Your task to perform on an android device: What's the weather today? Image 0: 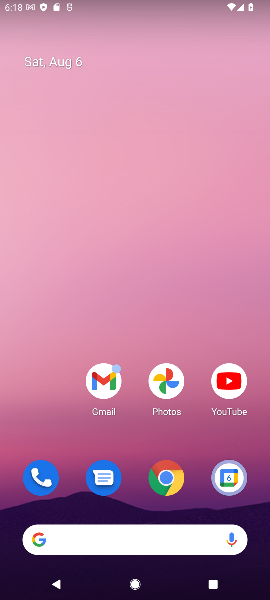
Step 0: click (117, 542)
Your task to perform on an android device: What's the weather today? Image 1: 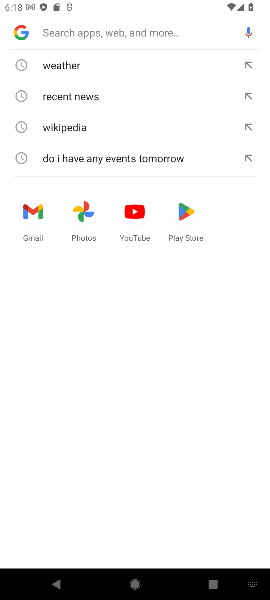
Step 1: click (64, 70)
Your task to perform on an android device: What's the weather today? Image 2: 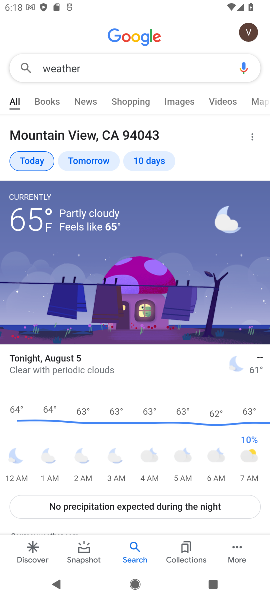
Step 2: task complete